Your task to perform on an android device: allow notifications from all sites in the chrome app Image 0: 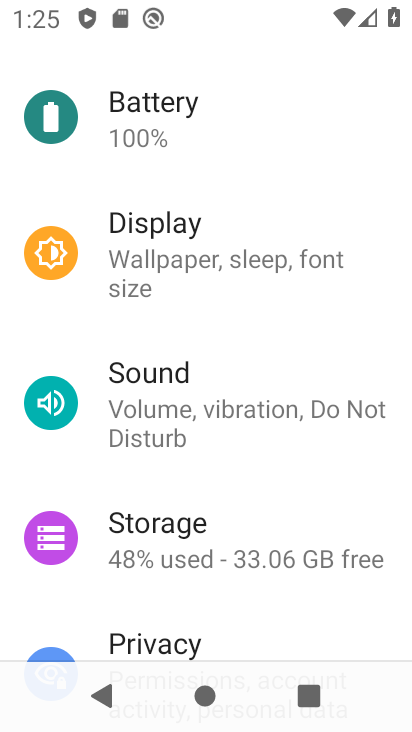
Step 0: press home button
Your task to perform on an android device: allow notifications from all sites in the chrome app Image 1: 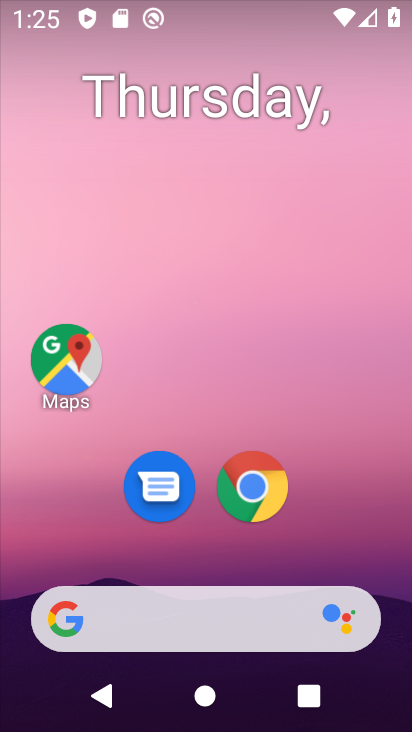
Step 1: click (255, 495)
Your task to perform on an android device: allow notifications from all sites in the chrome app Image 2: 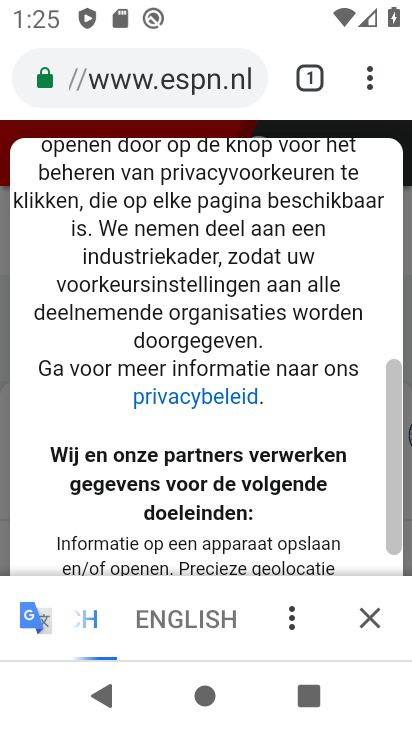
Step 2: click (367, 94)
Your task to perform on an android device: allow notifications from all sites in the chrome app Image 3: 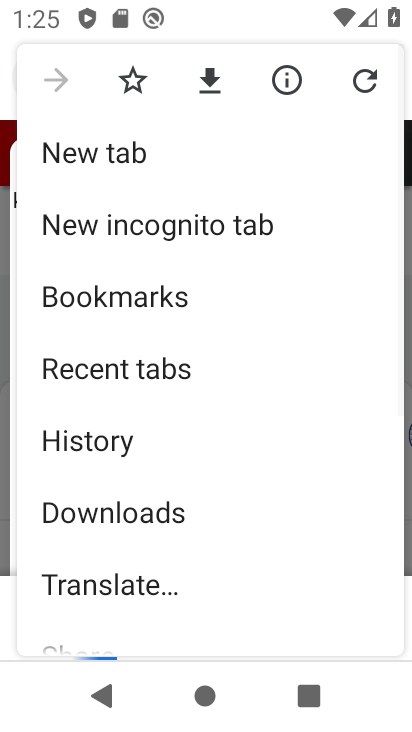
Step 3: drag from (250, 593) to (234, 93)
Your task to perform on an android device: allow notifications from all sites in the chrome app Image 4: 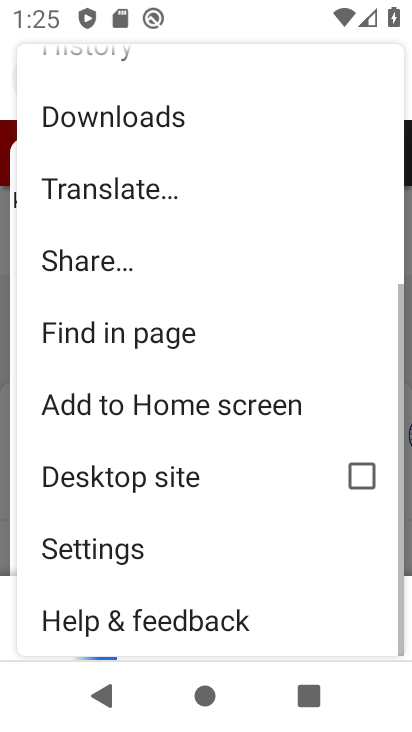
Step 4: click (179, 534)
Your task to perform on an android device: allow notifications from all sites in the chrome app Image 5: 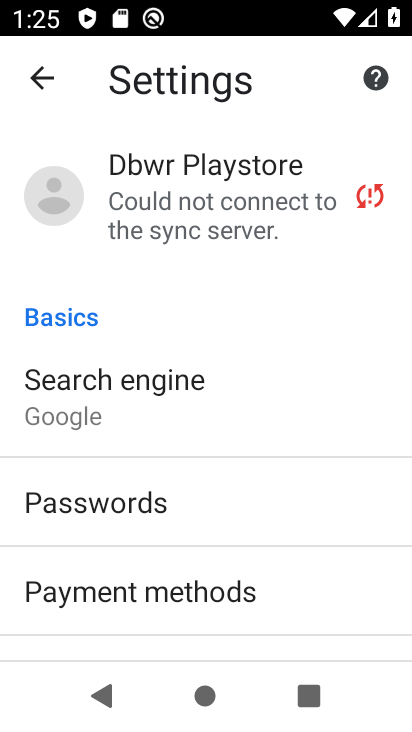
Step 5: drag from (266, 648) to (322, 193)
Your task to perform on an android device: allow notifications from all sites in the chrome app Image 6: 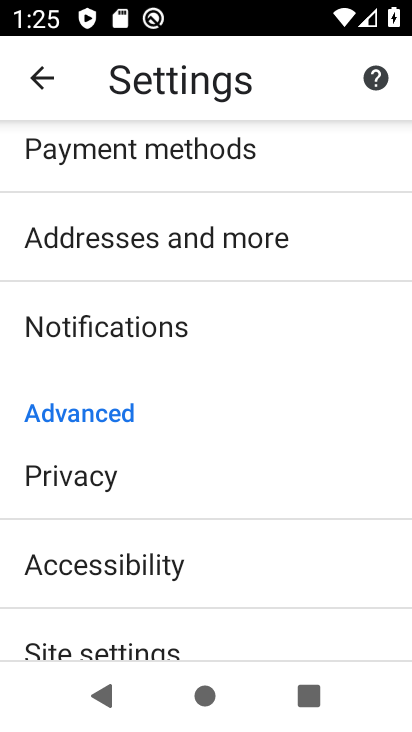
Step 6: drag from (248, 562) to (254, 207)
Your task to perform on an android device: allow notifications from all sites in the chrome app Image 7: 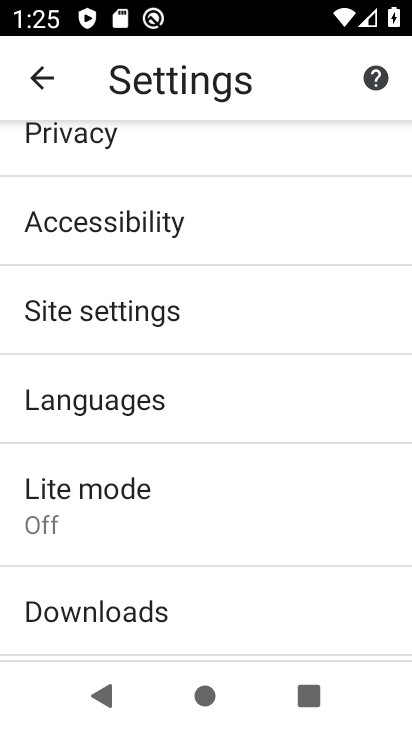
Step 7: click (239, 283)
Your task to perform on an android device: allow notifications from all sites in the chrome app Image 8: 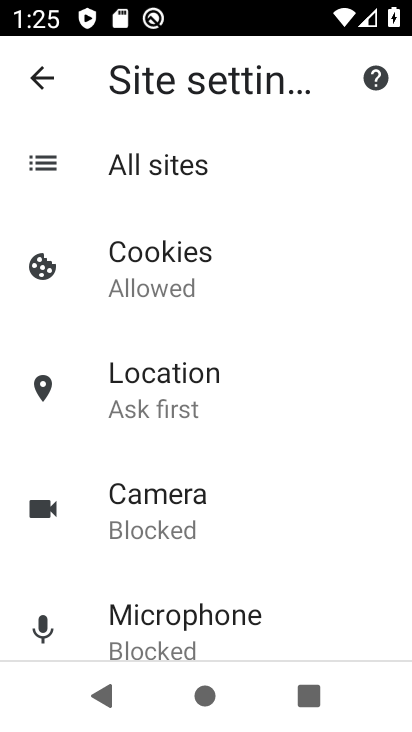
Step 8: drag from (273, 542) to (274, 165)
Your task to perform on an android device: allow notifications from all sites in the chrome app Image 9: 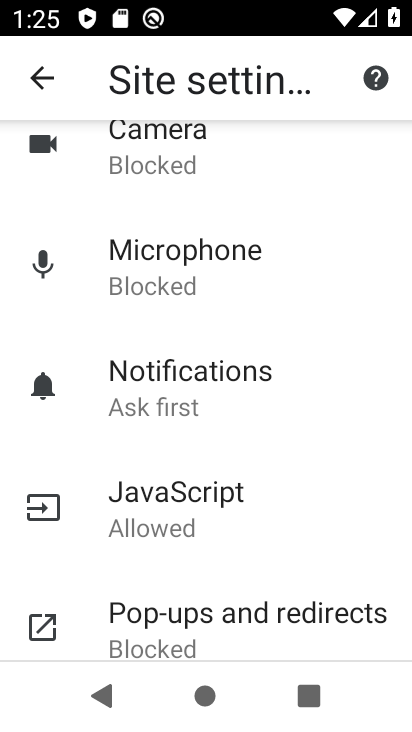
Step 9: click (261, 372)
Your task to perform on an android device: allow notifications from all sites in the chrome app Image 10: 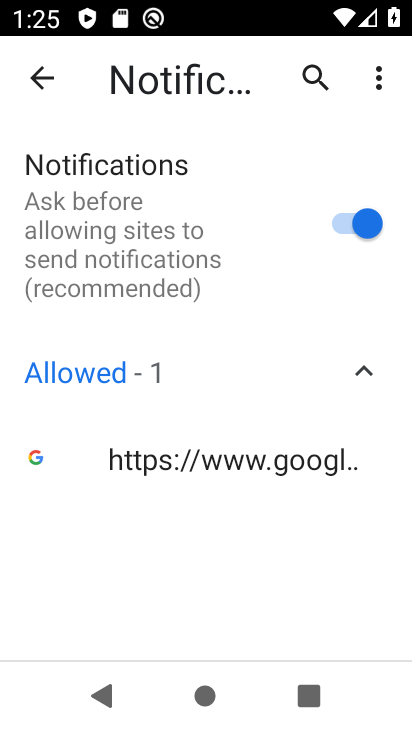
Step 10: task complete